Your task to perform on an android device: see tabs open on other devices in the chrome app Image 0: 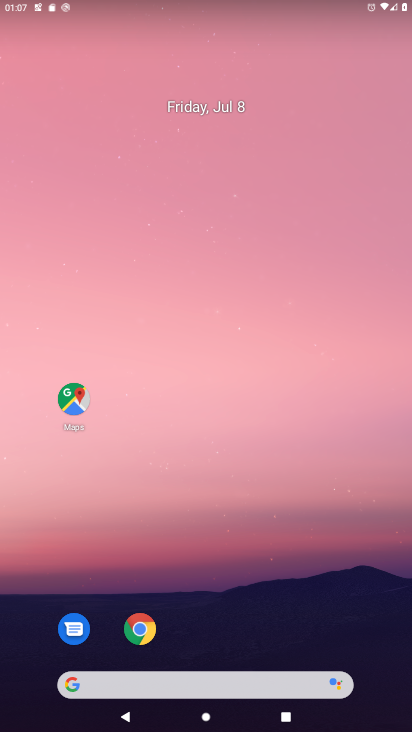
Step 0: click (141, 626)
Your task to perform on an android device: see tabs open on other devices in the chrome app Image 1: 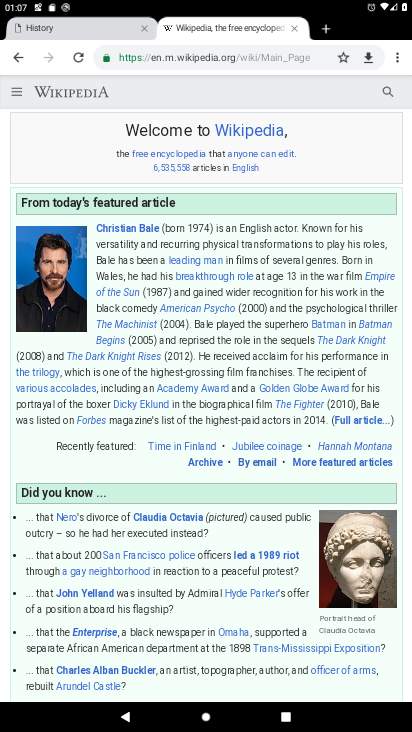
Step 1: click (403, 53)
Your task to perform on an android device: see tabs open on other devices in the chrome app Image 2: 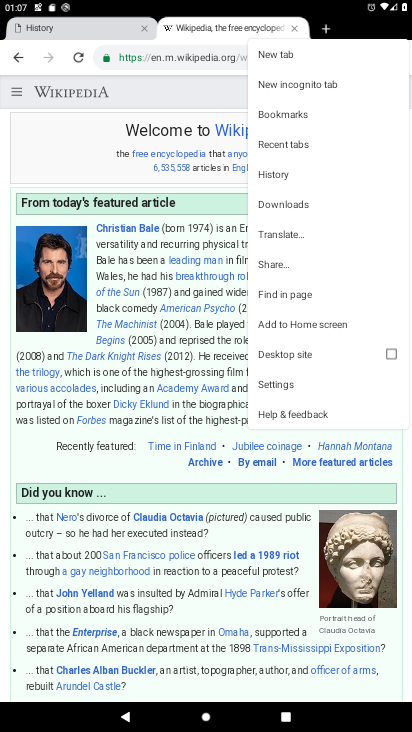
Step 2: click (274, 144)
Your task to perform on an android device: see tabs open on other devices in the chrome app Image 3: 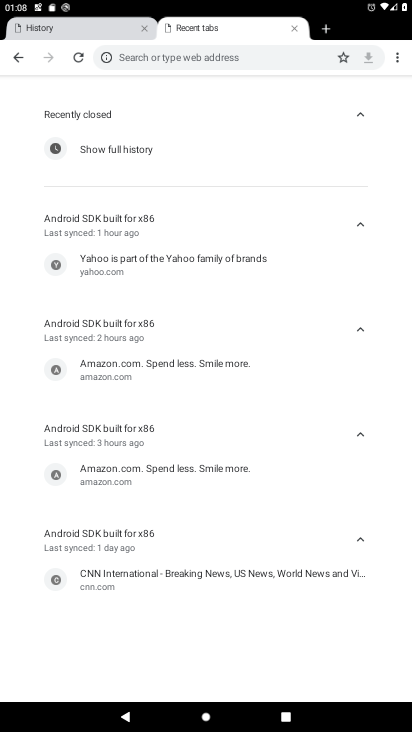
Step 3: task complete